Your task to perform on an android device: Go to Android settings Image 0: 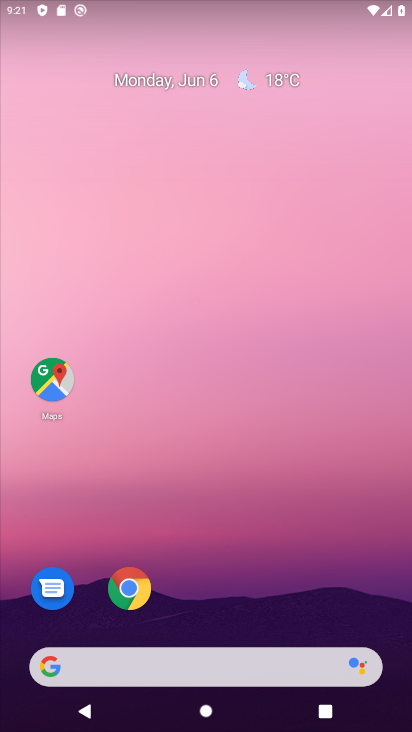
Step 0: drag from (212, 605) to (349, 59)
Your task to perform on an android device: Go to Android settings Image 1: 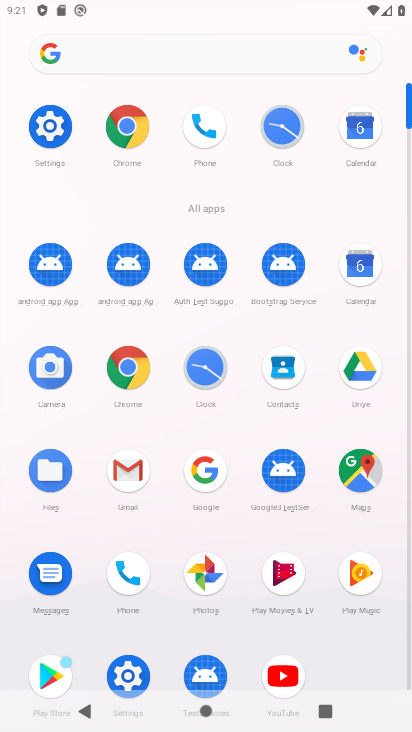
Step 1: click (121, 671)
Your task to perform on an android device: Go to Android settings Image 2: 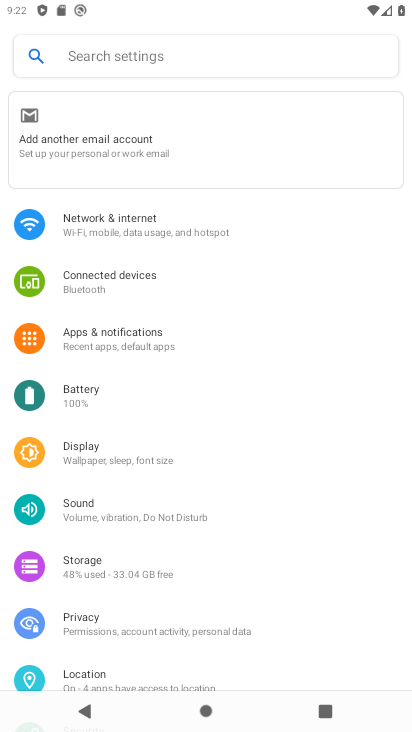
Step 2: drag from (210, 604) to (306, 163)
Your task to perform on an android device: Go to Android settings Image 3: 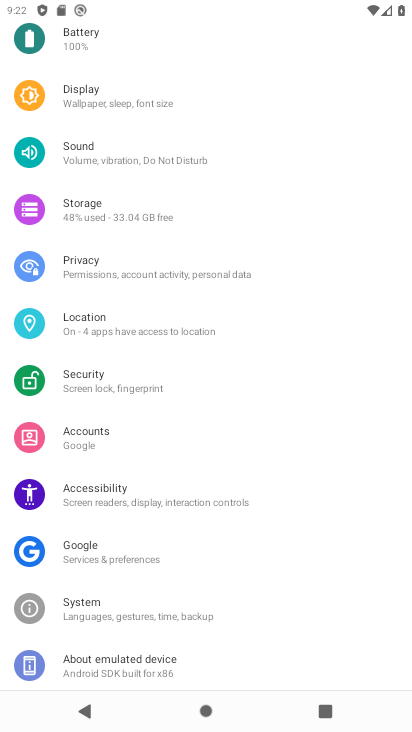
Step 3: click (109, 610)
Your task to perform on an android device: Go to Android settings Image 4: 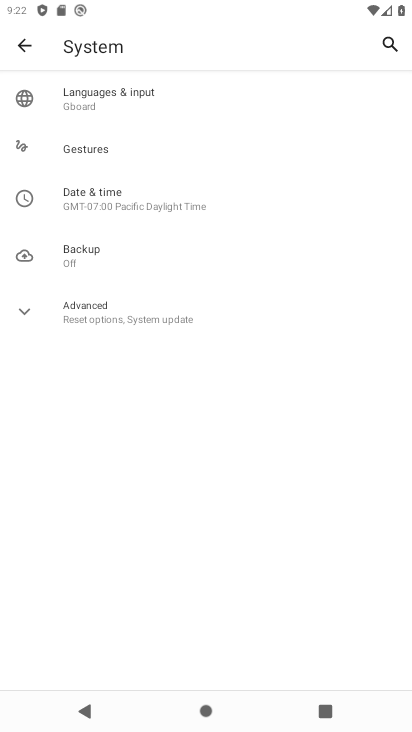
Step 4: task complete